Your task to perform on an android device: Open the web browser Image 0: 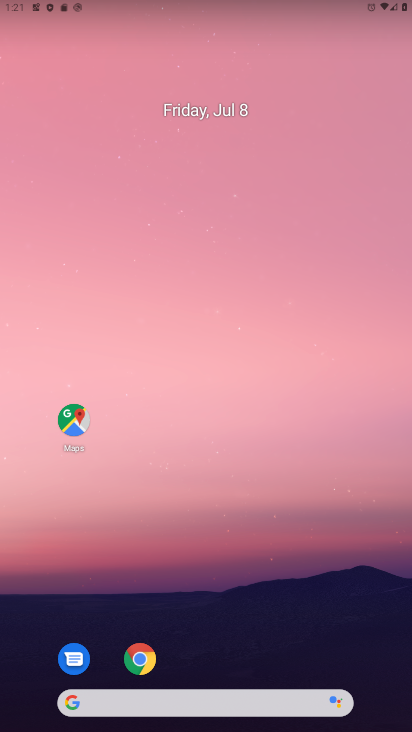
Step 0: click (144, 656)
Your task to perform on an android device: Open the web browser Image 1: 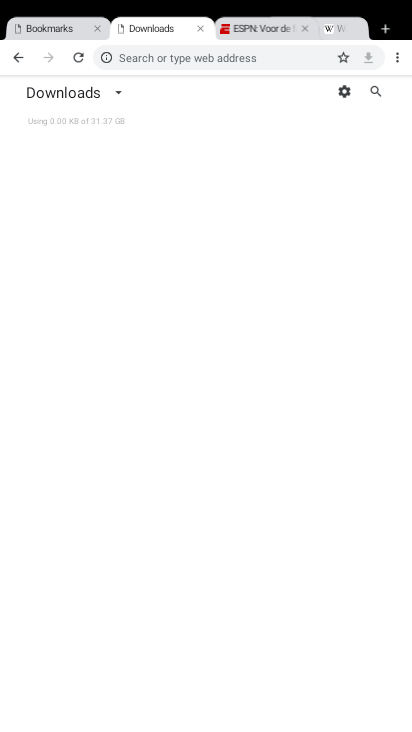
Step 1: task complete